Your task to perform on an android device: Open sound settings Image 0: 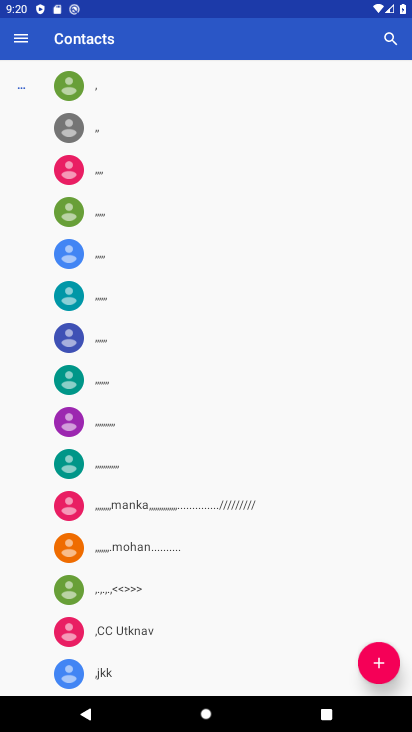
Step 0: press home button
Your task to perform on an android device: Open sound settings Image 1: 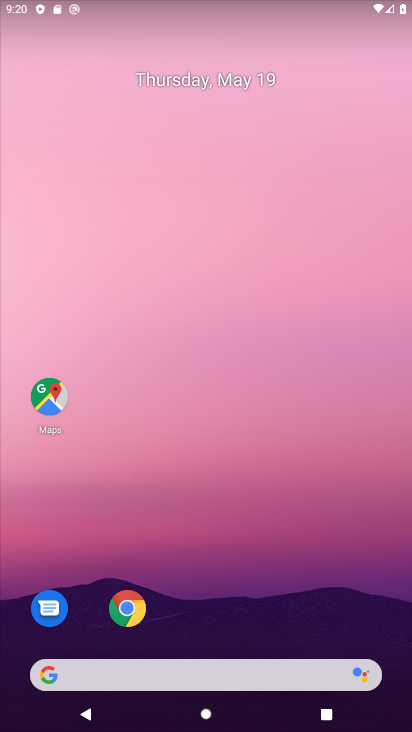
Step 1: drag from (169, 606) to (232, 219)
Your task to perform on an android device: Open sound settings Image 2: 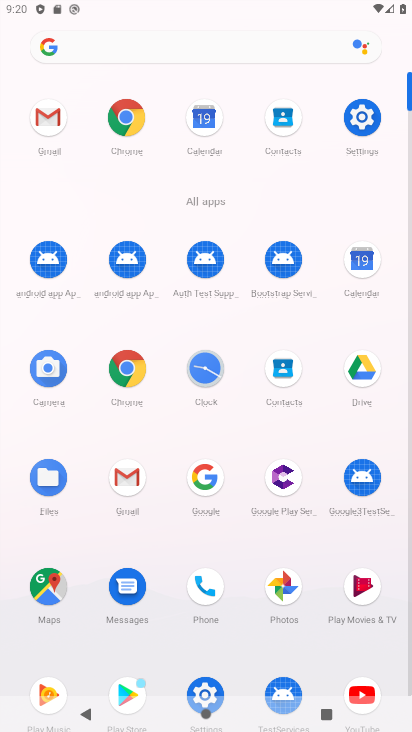
Step 2: click (363, 114)
Your task to perform on an android device: Open sound settings Image 3: 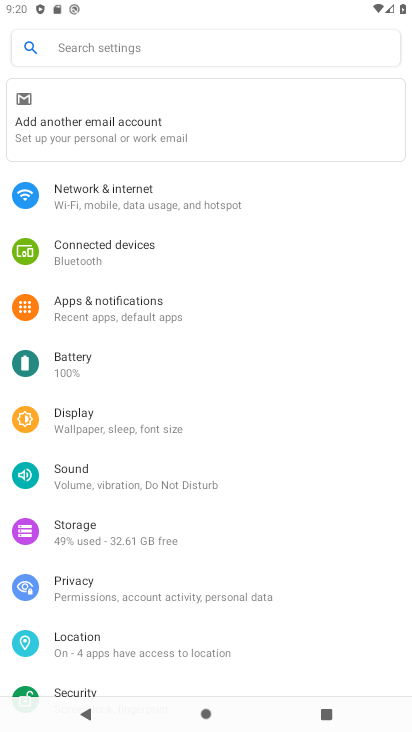
Step 3: click (124, 473)
Your task to perform on an android device: Open sound settings Image 4: 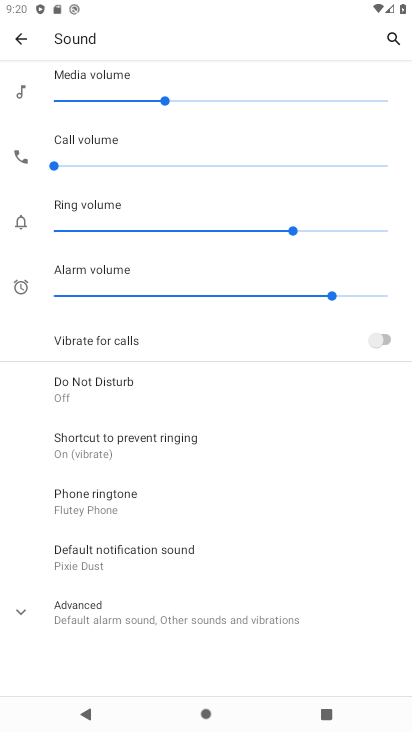
Step 4: task complete